Your task to perform on an android device: Open the map Image 0: 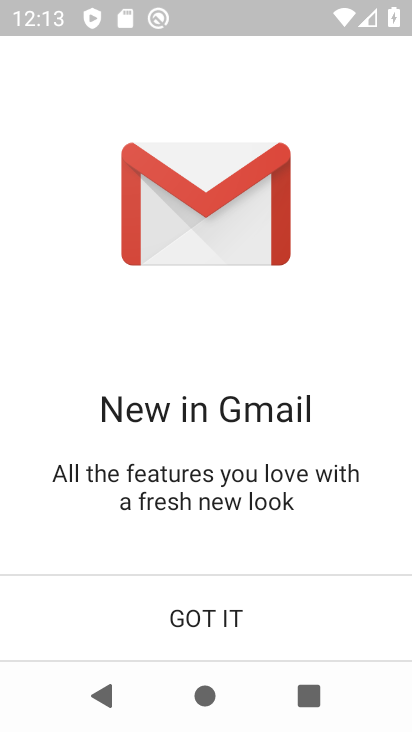
Step 0: press back button
Your task to perform on an android device: Open the map Image 1: 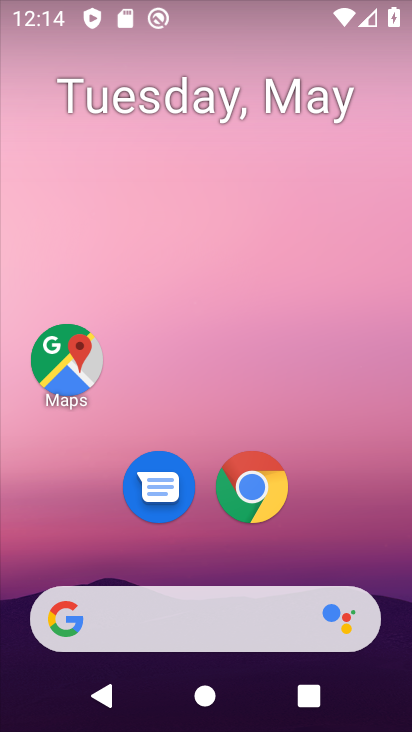
Step 1: drag from (320, 531) to (263, 9)
Your task to perform on an android device: Open the map Image 2: 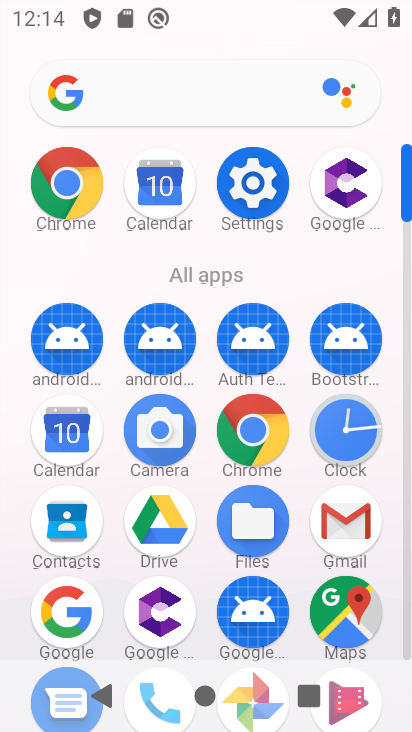
Step 2: click (348, 611)
Your task to perform on an android device: Open the map Image 3: 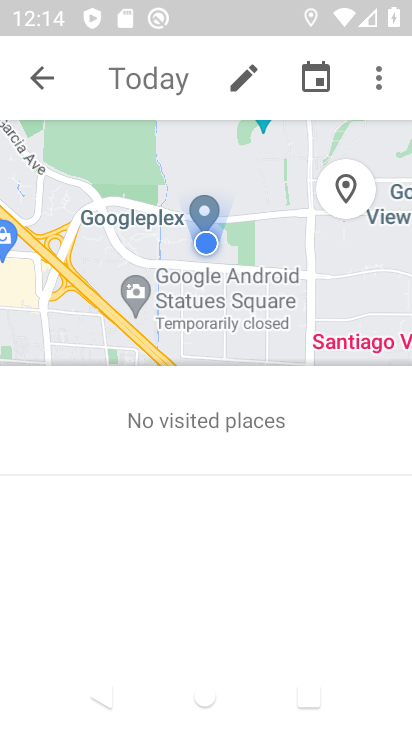
Step 3: click (39, 74)
Your task to perform on an android device: Open the map Image 4: 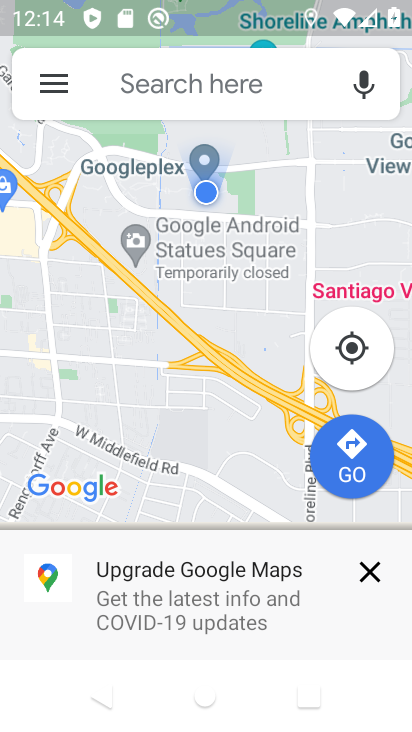
Step 4: task complete